Your task to perform on an android device: Go to accessibility settings Image 0: 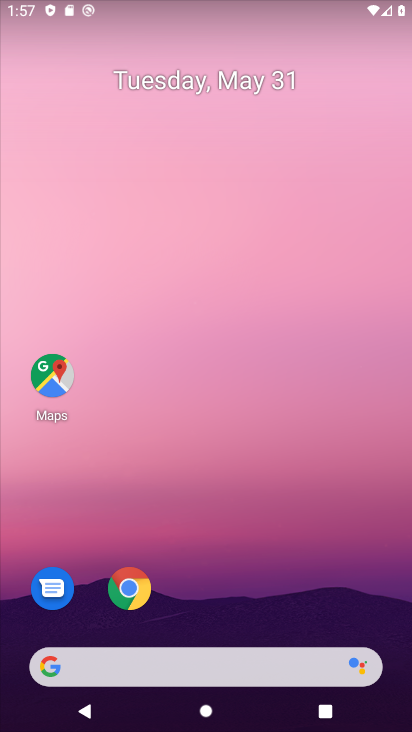
Step 0: drag from (135, 725) to (130, 143)
Your task to perform on an android device: Go to accessibility settings Image 1: 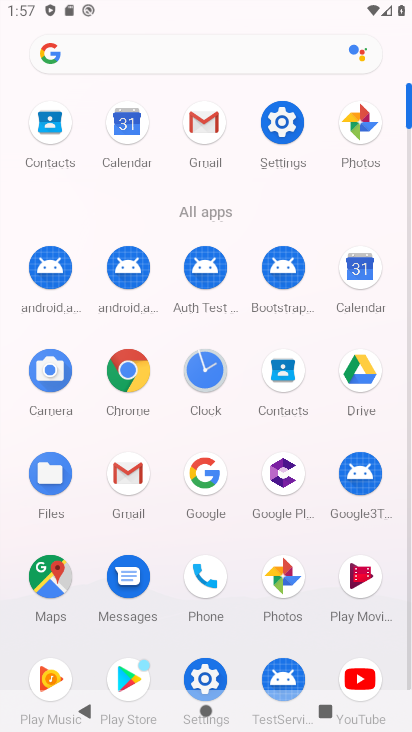
Step 1: click (279, 140)
Your task to perform on an android device: Go to accessibility settings Image 2: 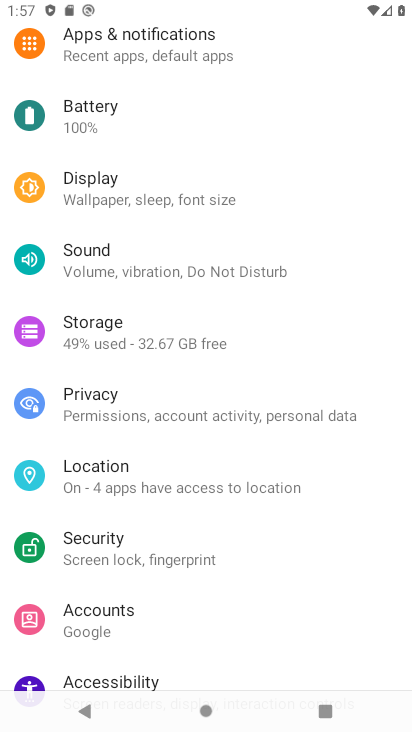
Step 2: click (179, 677)
Your task to perform on an android device: Go to accessibility settings Image 3: 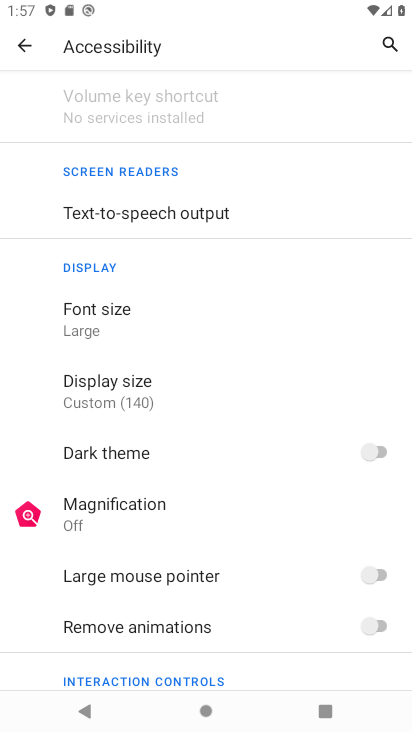
Step 3: task complete